Your task to perform on an android device: check the backup settings in the google photos Image 0: 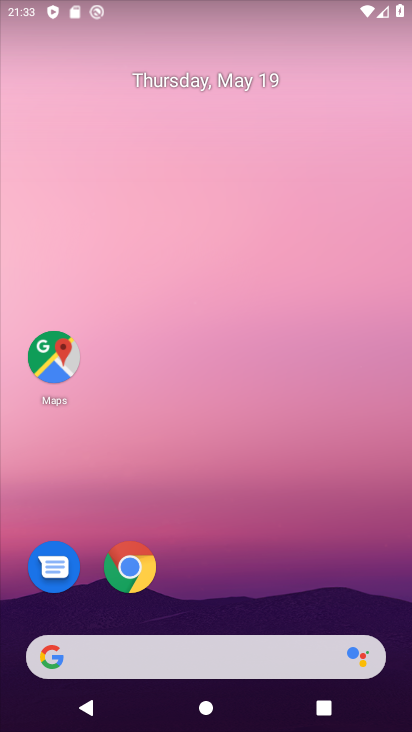
Step 0: drag from (192, 615) to (180, 167)
Your task to perform on an android device: check the backup settings in the google photos Image 1: 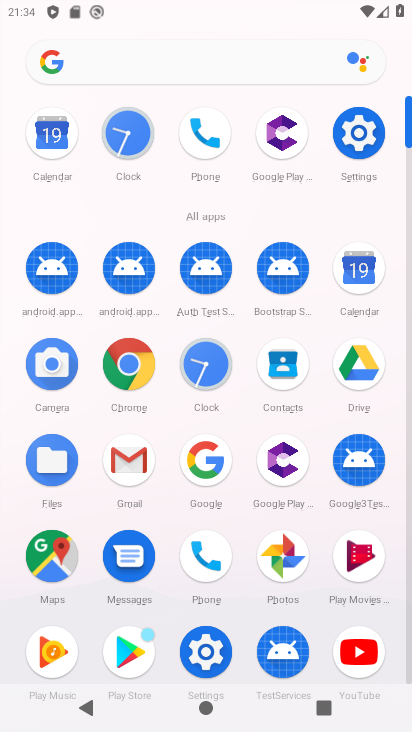
Step 1: click (278, 548)
Your task to perform on an android device: check the backup settings in the google photos Image 2: 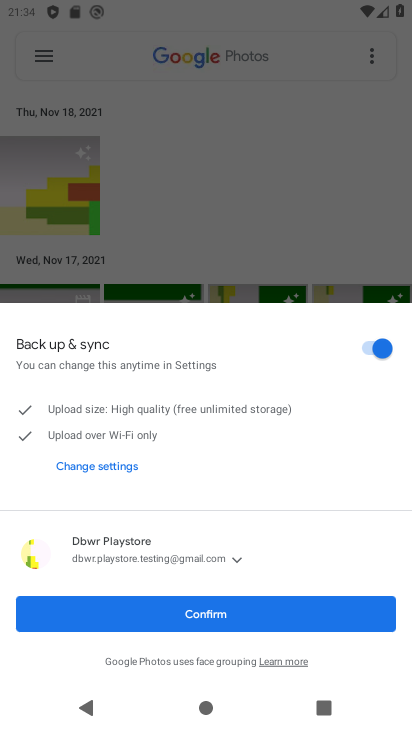
Step 2: click (204, 609)
Your task to perform on an android device: check the backup settings in the google photos Image 3: 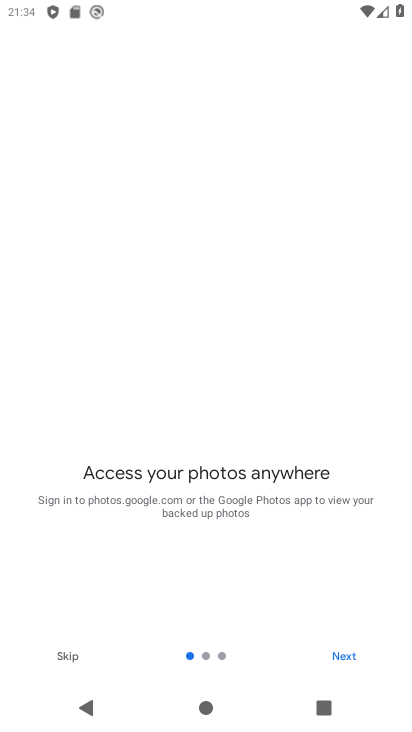
Step 3: click (339, 655)
Your task to perform on an android device: check the backup settings in the google photos Image 4: 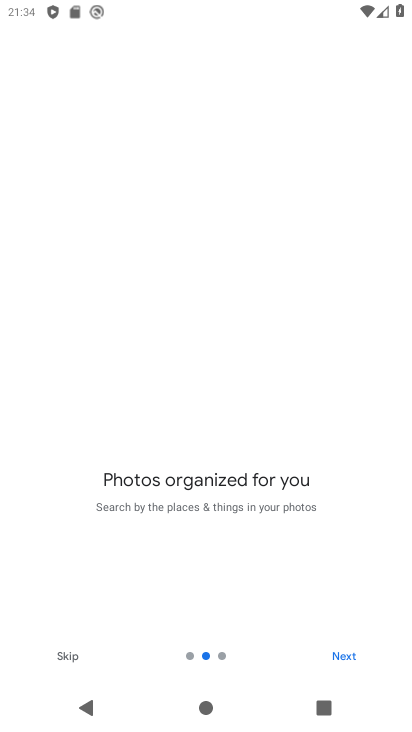
Step 4: click (339, 655)
Your task to perform on an android device: check the backup settings in the google photos Image 5: 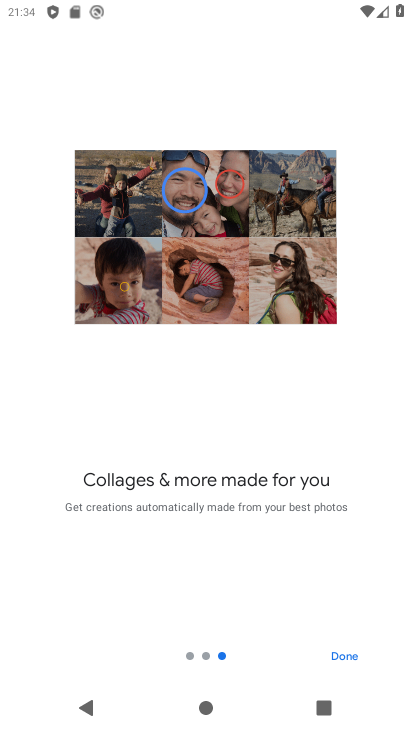
Step 5: click (339, 655)
Your task to perform on an android device: check the backup settings in the google photos Image 6: 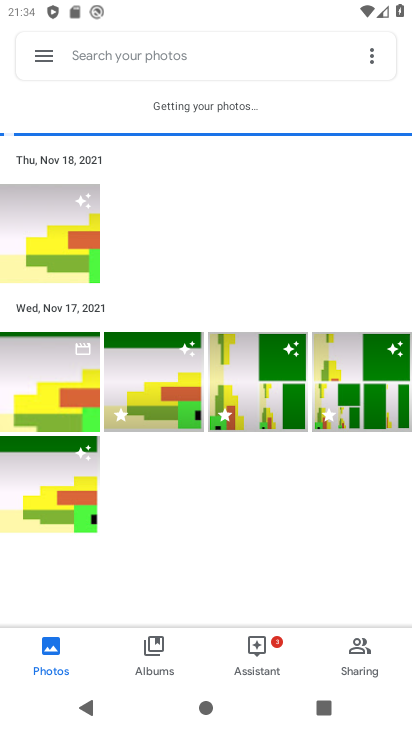
Step 6: click (45, 52)
Your task to perform on an android device: check the backup settings in the google photos Image 7: 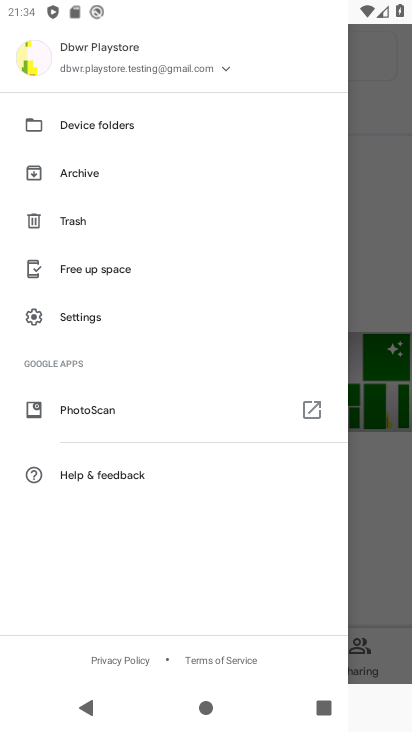
Step 7: click (95, 314)
Your task to perform on an android device: check the backup settings in the google photos Image 8: 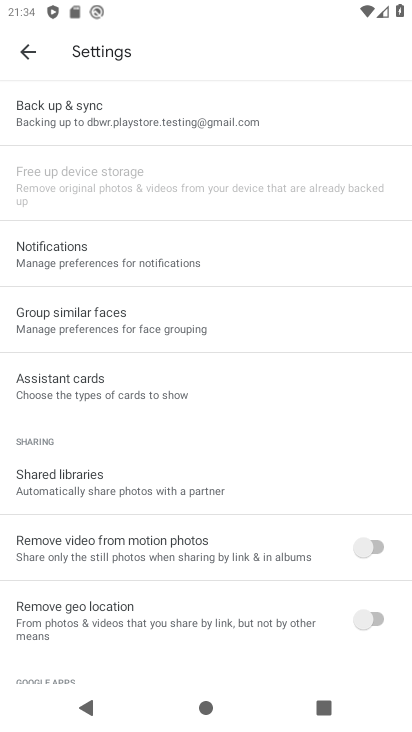
Step 8: click (103, 105)
Your task to perform on an android device: check the backup settings in the google photos Image 9: 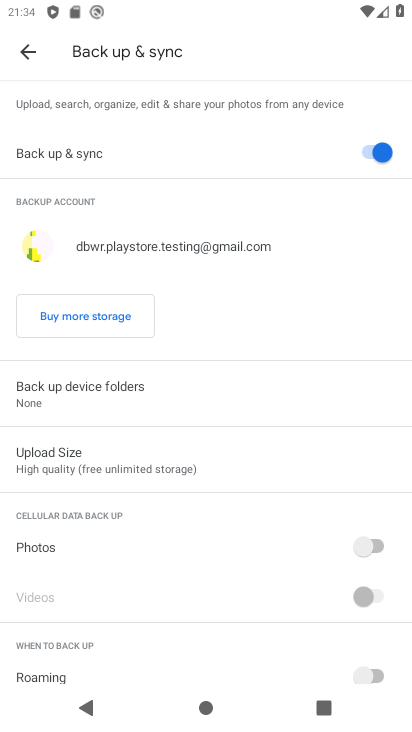
Step 9: task complete